Your task to perform on an android device: check battery use Image 0: 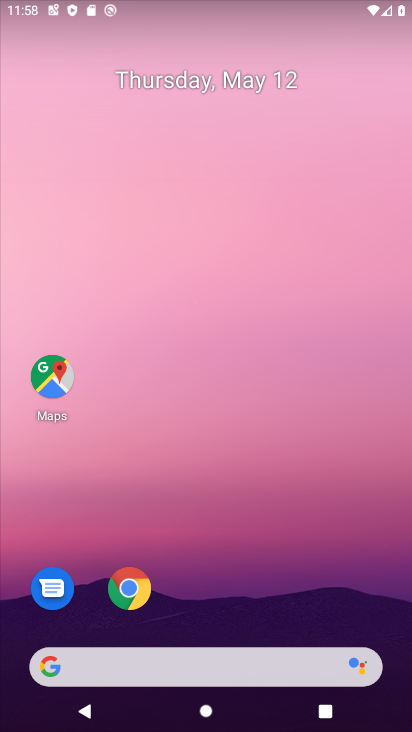
Step 0: drag from (214, 566) to (176, 251)
Your task to perform on an android device: check battery use Image 1: 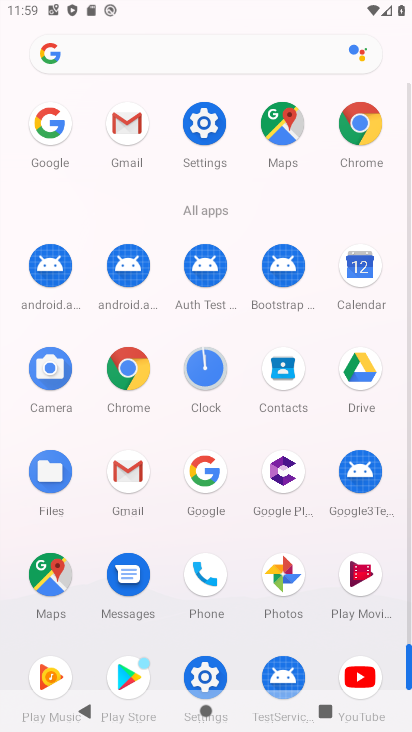
Step 1: click (198, 158)
Your task to perform on an android device: check battery use Image 2: 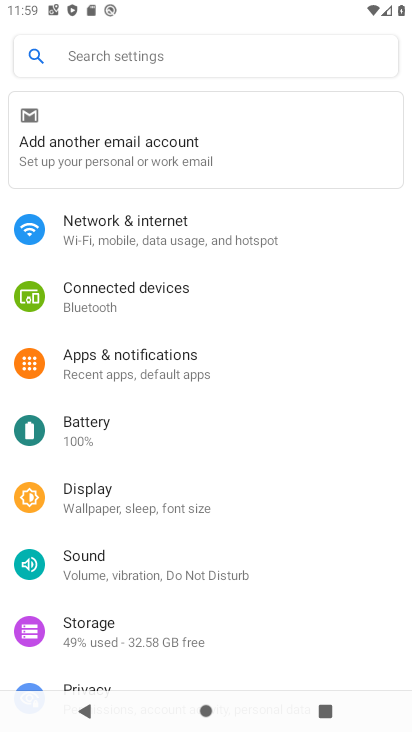
Step 2: click (183, 445)
Your task to perform on an android device: check battery use Image 3: 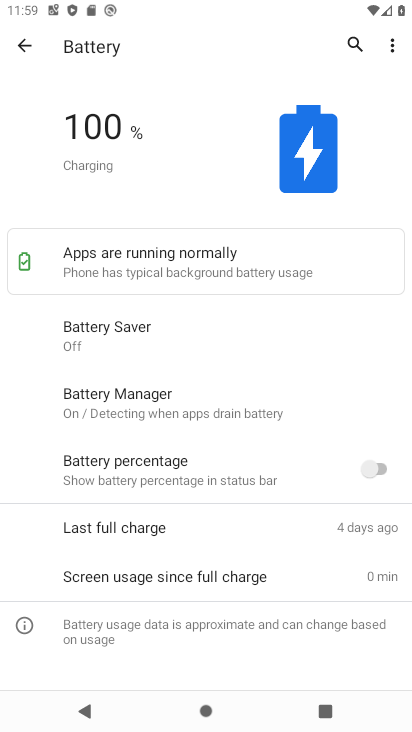
Step 3: task complete